Your task to perform on an android device: open chrome and create a bookmark for the current page Image 0: 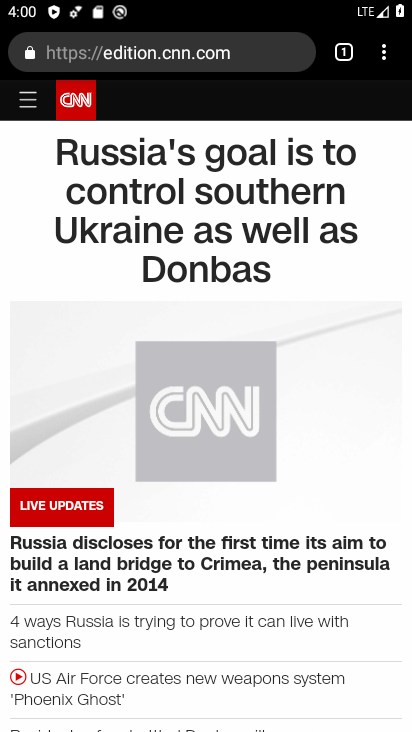
Step 0: press home button
Your task to perform on an android device: open chrome and create a bookmark for the current page Image 1: 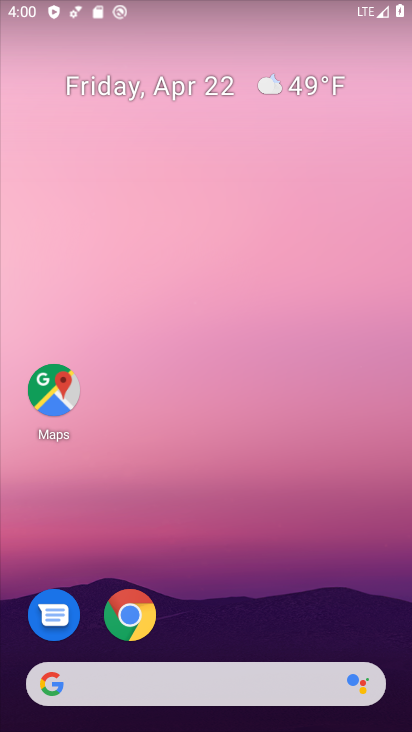
Step 1: click (138, 600)
Your task to perform on an android device: open chrome and create a bookmark for the current page Image 2: 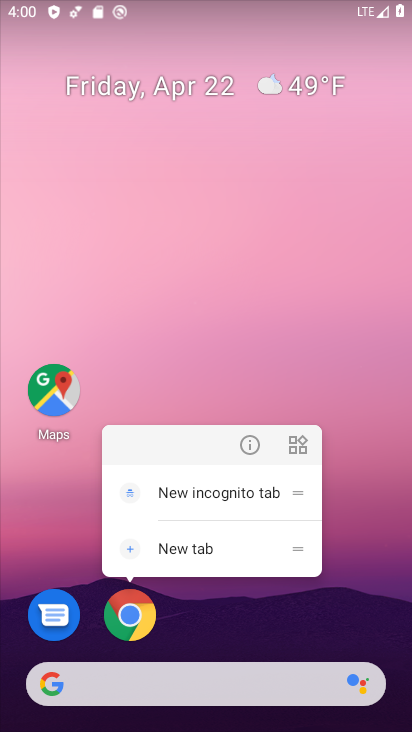
Step 2: click (131, 620)
Your task to perform on an android device: open chrome and create a bookmark for the current page Image 3: 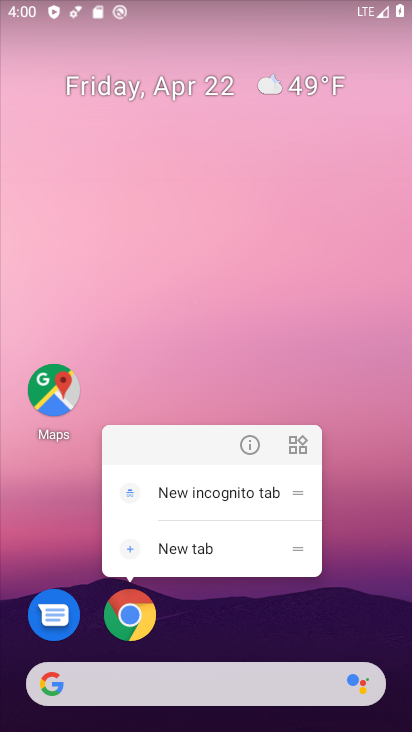
Step 3: click (125, 625)
Your task to perform on an android device: open chrome and create a bookmark for the current page Image 4: 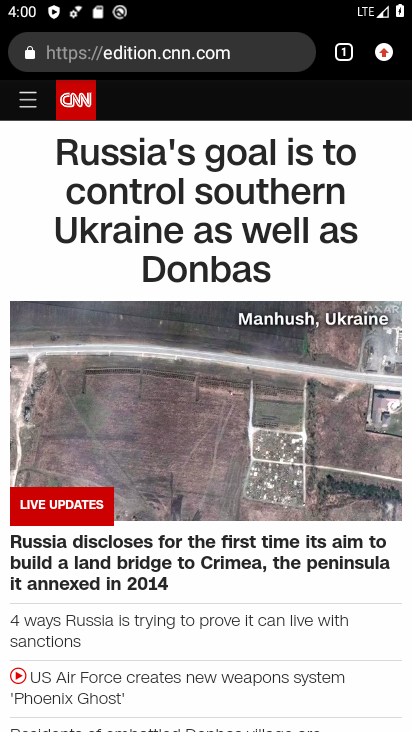
Step 4: click (382, 59)
Your task to perform on an android device: open chrome and create a bookmark for the current page Image 5: 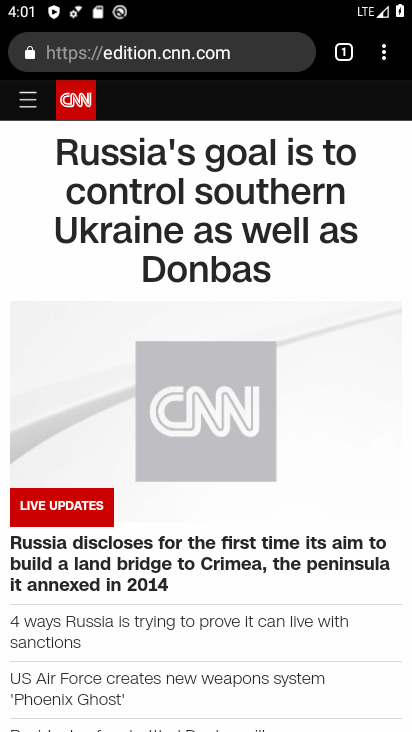
Step 5: click (382, 60)
Your task to perform on an android device: open chrome and create a bookmark for the current page Image 6: 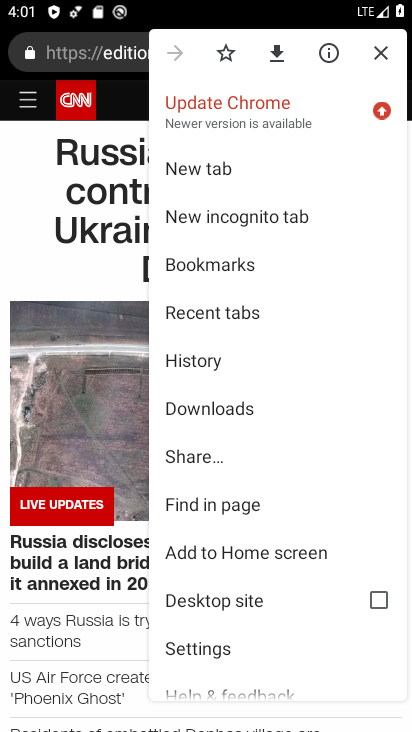
Step 6: click (224, 50)
Your task to perform on an android device: open chrome and create a bookmark for the current page Image 7: 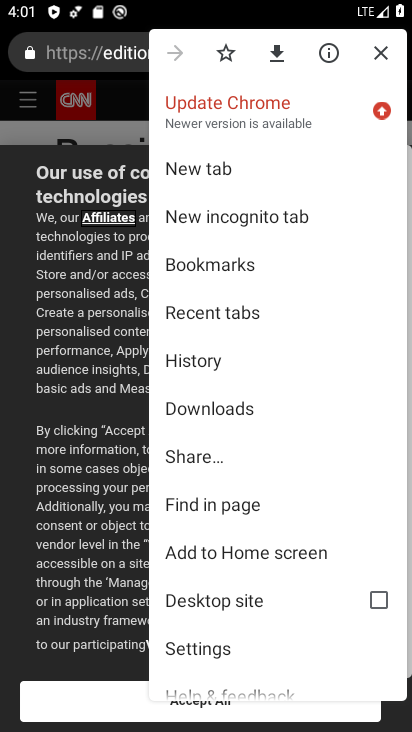
Step 7: click (228, 57)
Your task to perform on an android device: open chrome and create a bookmark for the current page Image 8: 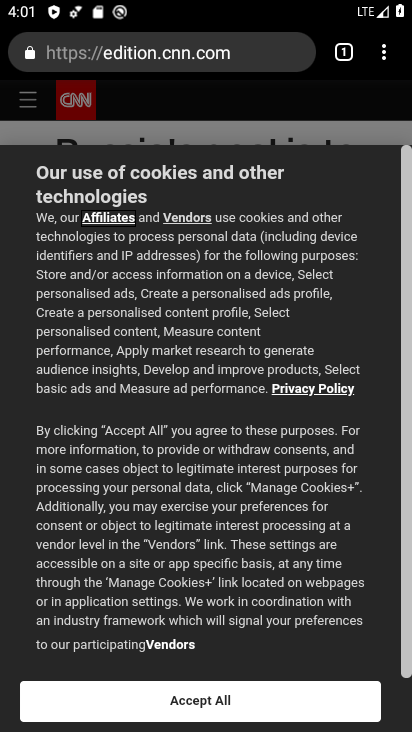
Step 8: click (396, 68)
Your task to perform on an android device: open chrome and create a bookmark for the current page Image 9: 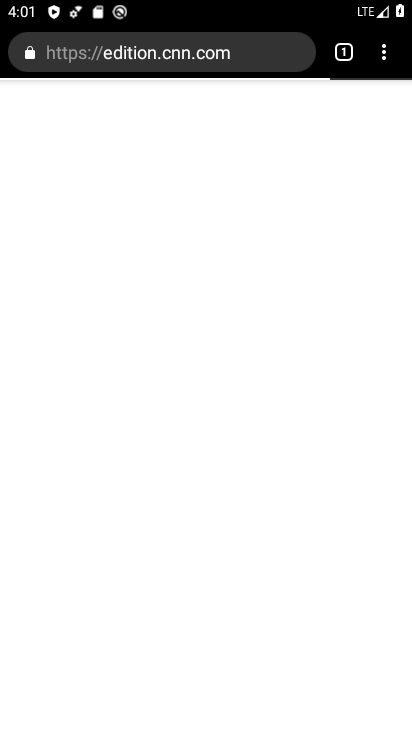
Step 9: click (378, 60)
Your task to perform on an android device: open chrome and create a bookmark for the current page Image 10: 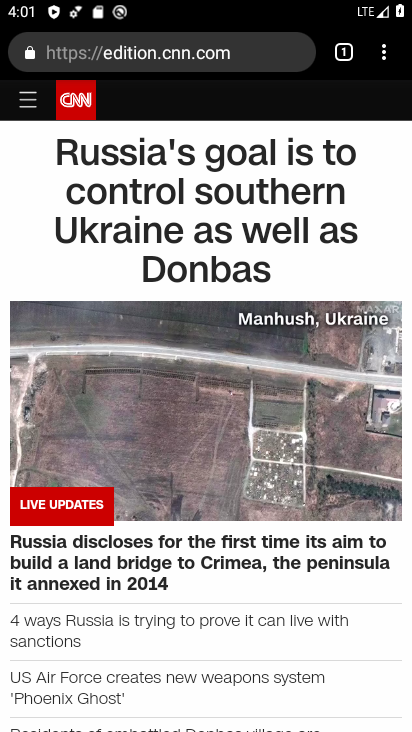
Step 10: task complete